Your task to perform on an android device: toggle location history Image 0: 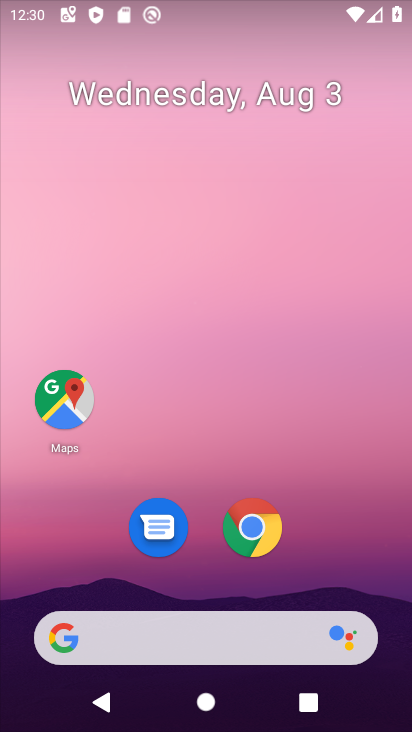
Step 0: drag from (192, 593) to (277, 2)
Your task to perform on an android device: toggle location history Image 1: 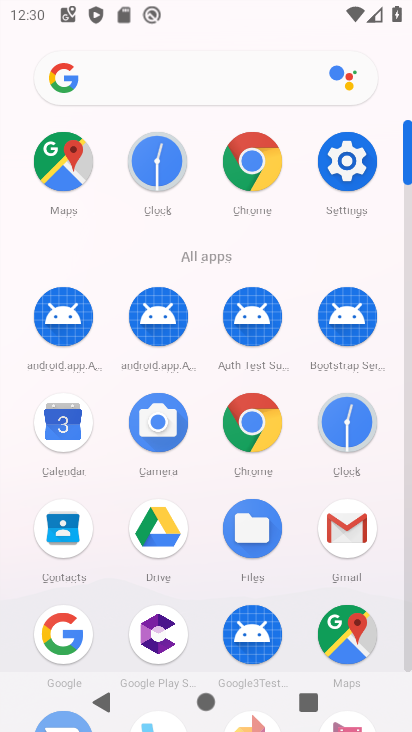
Step 1: click (349, 157)
Your task to perform on an android device: toggle location history Image 2: 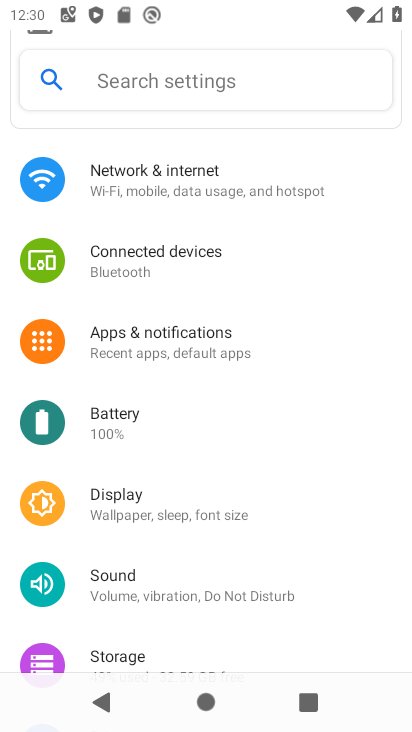
Step 2: drag from (158, 613) to (179, 284)
Your task to perform on an android device: toggle location history Image 3: 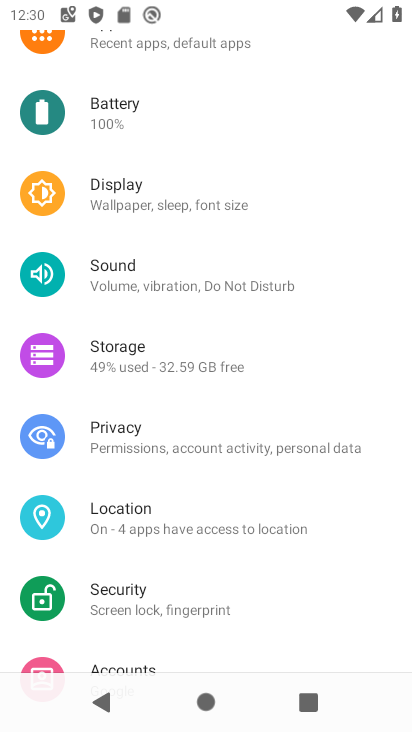
Step 3: click (170, 514)
Your task to perform on an android device: toggle location history Image 4: 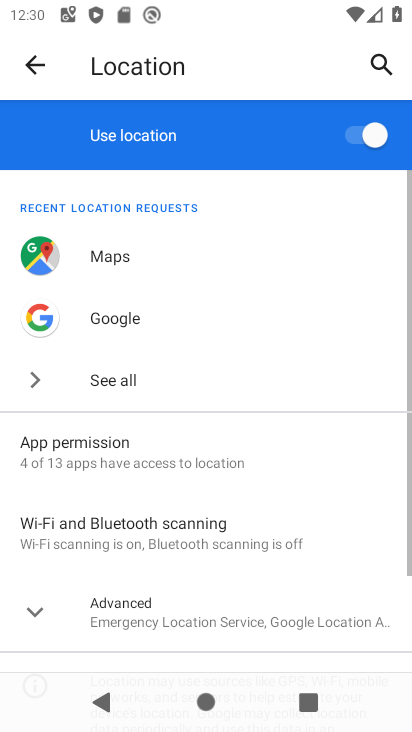
Step 4: click (124, 614)
Your task to perform on an android device: toggle location history Image 5: 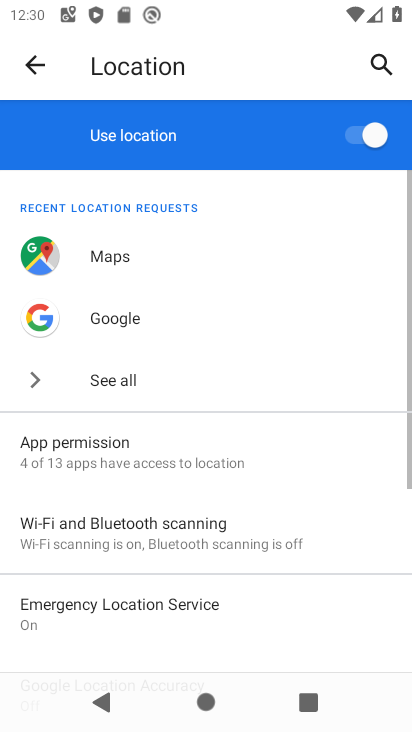
Step 5: drag from (208, 607) to (191, 324)
Your task to perform on an android device: toggle location history Image 6: 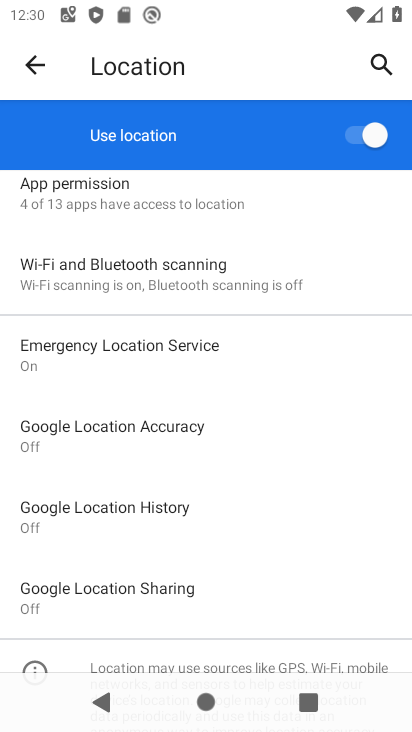
Step 6: click (101, 515)
Your task to perform on an android device: toggle location history Image 7: 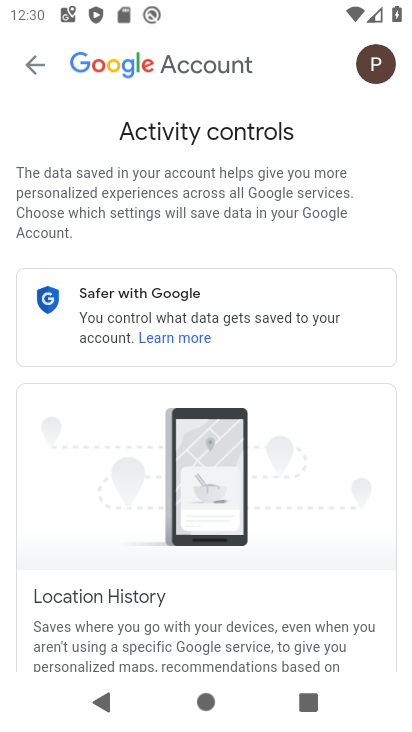
Step 7: drag from (135, 559) to (233, 174)
Your task to perform on an android device: toggle location history Image 8: 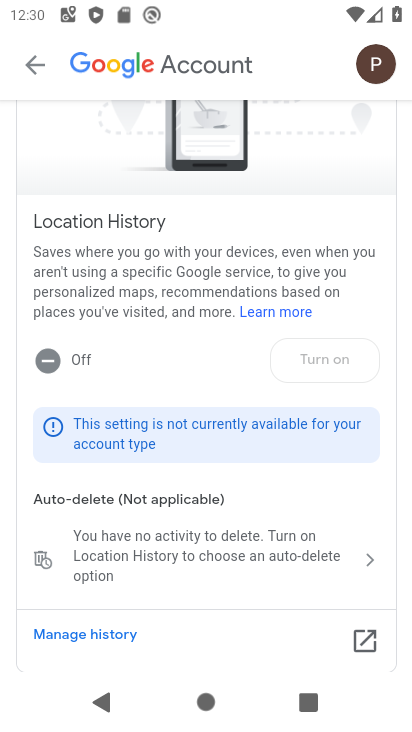
Step 8: click (352, 359)
Your task to perform on an android device: toggle location history Image 9: 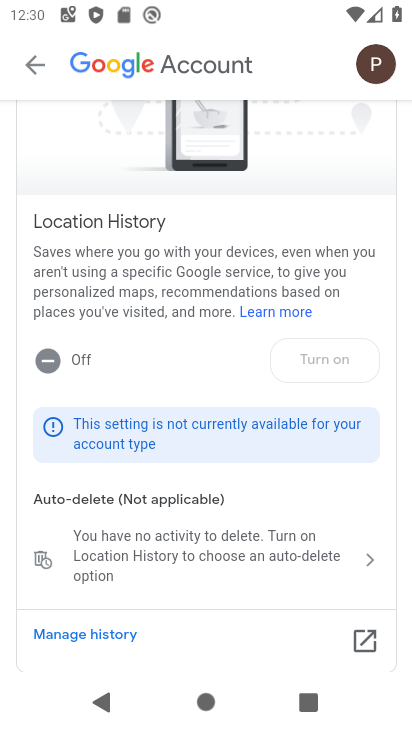
Step 9: task complete